Your task to perform on an android device: Search for "usb-c to usb-a" on newegg, select the first entry, add it to the cart, then select checkout. Image 0: 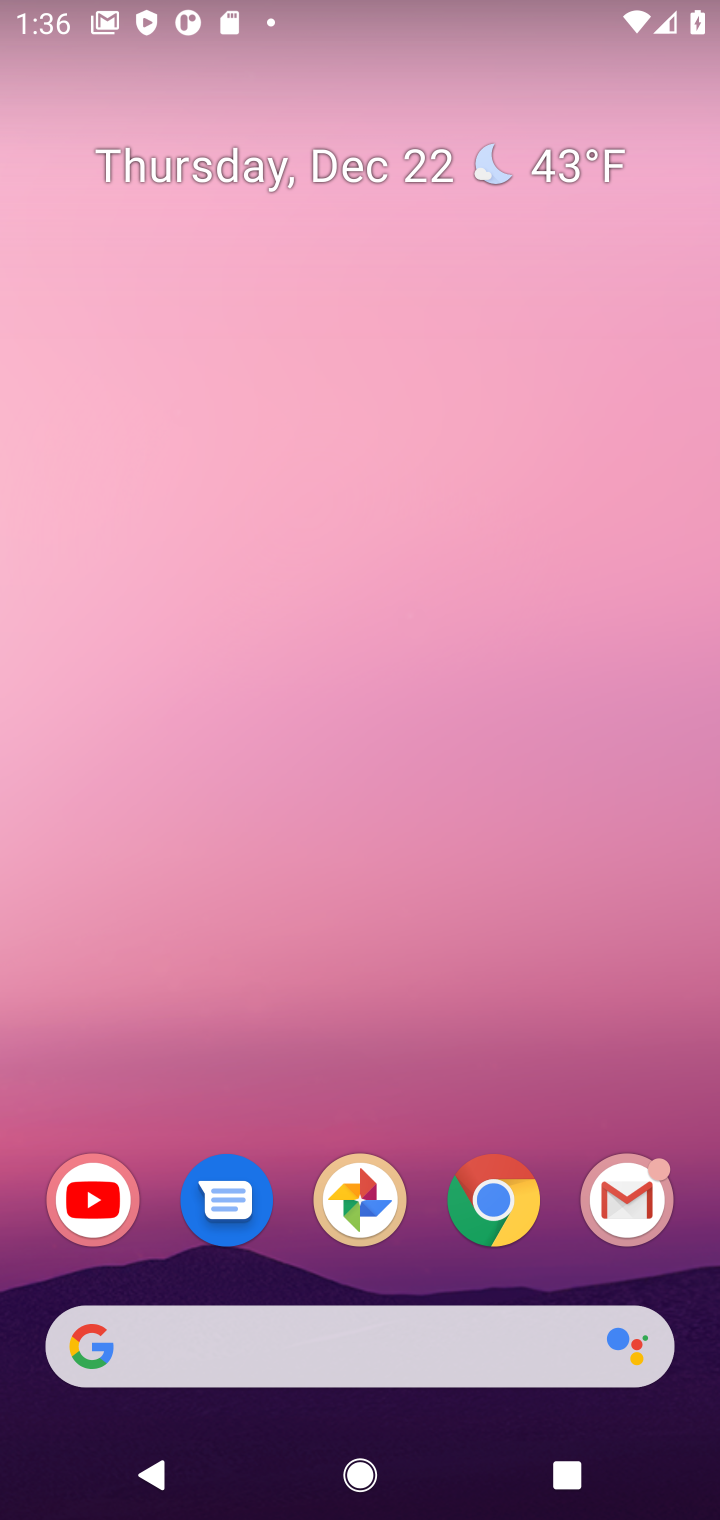
Step 0: click (491, 1215)
Your task to perform on an android device: Search for "usb-c to usb-a" on newegg, select the first entry, add it to the cart, then select checkout. Image 1: 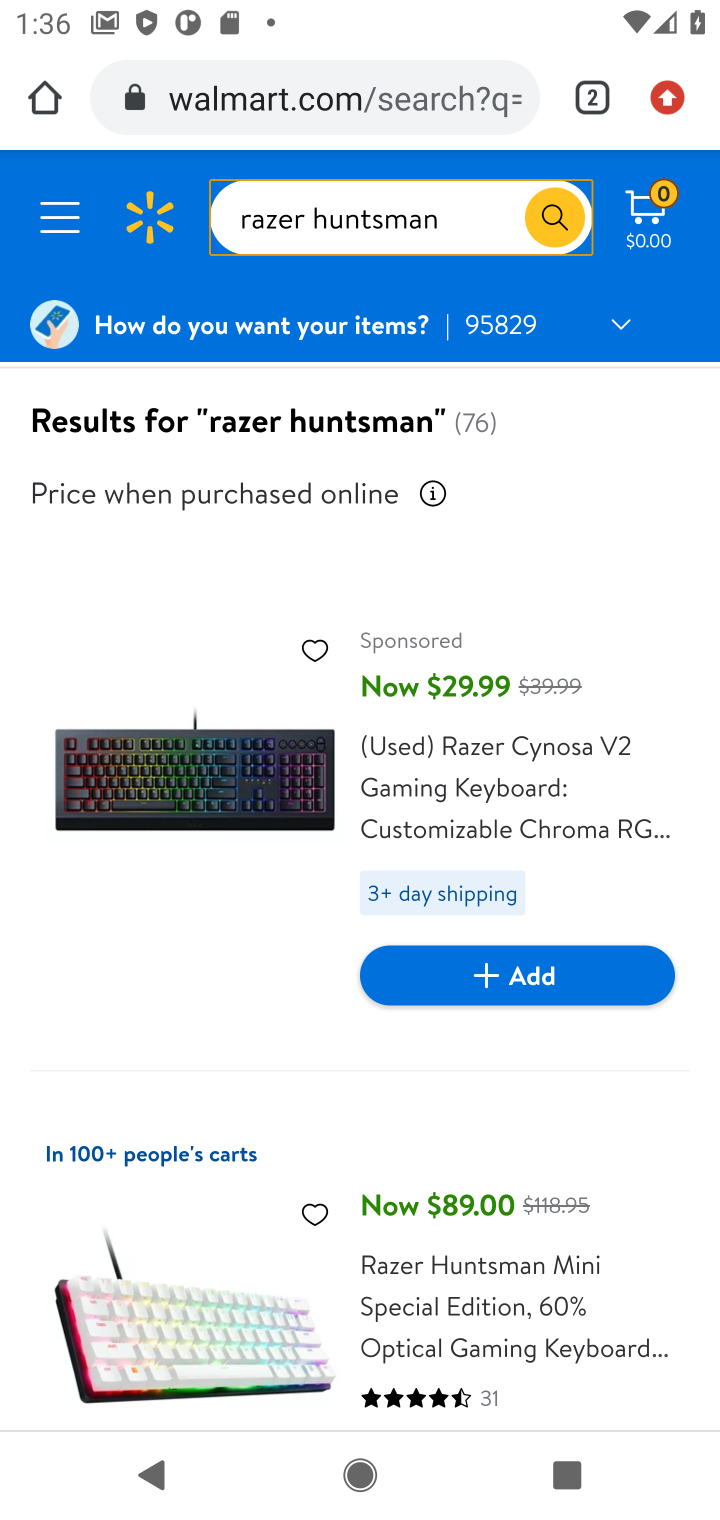
Step 1: click (286, 103)
Your task to perform on an android device: Search for "usb-c to usb-a" on newegg, select the first entry, add it to the cart, then select checkout. Image 2: 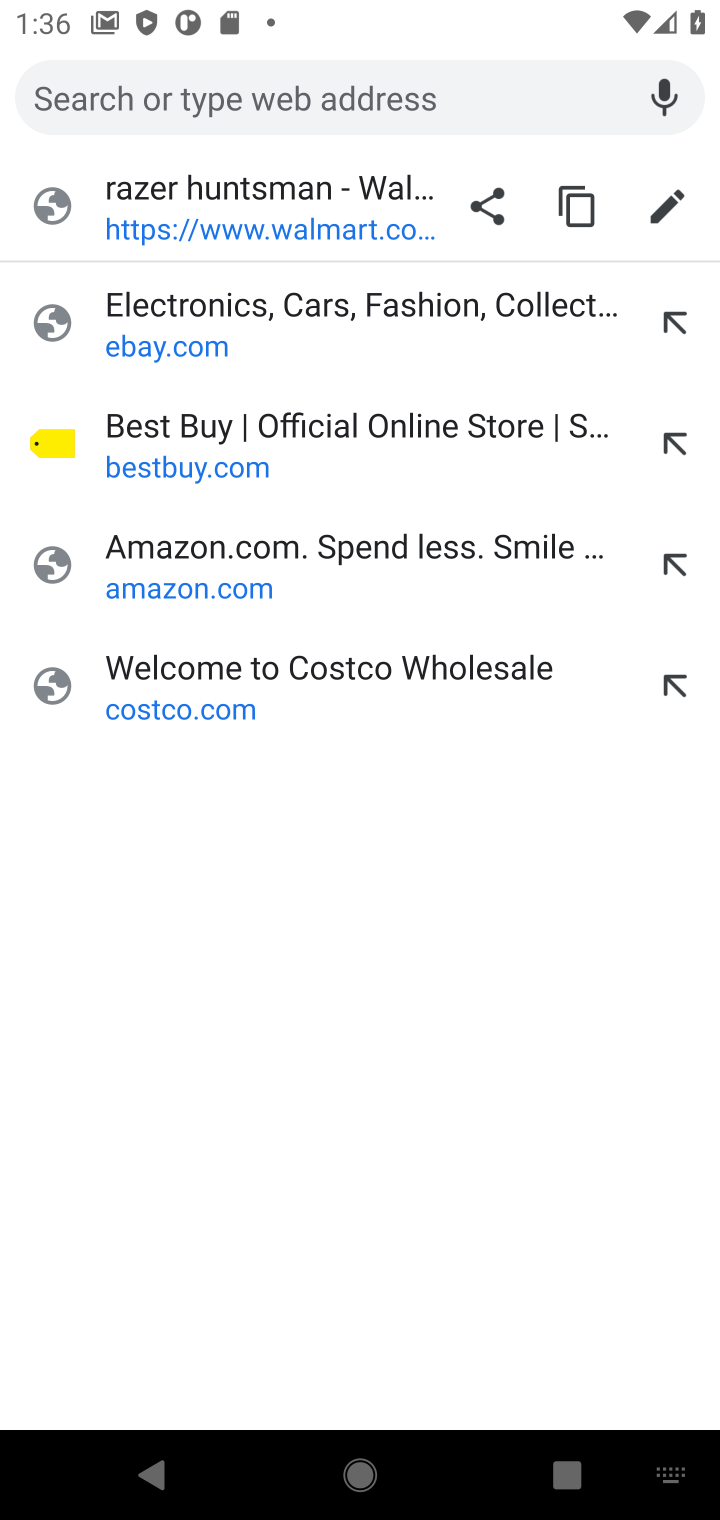
Step 2: click (286, 103)
Your task to perform on an android device: Search for "usb-c to usb-a" on newegg, select the first entry, add it to the cart, then select checkout. Image 3: 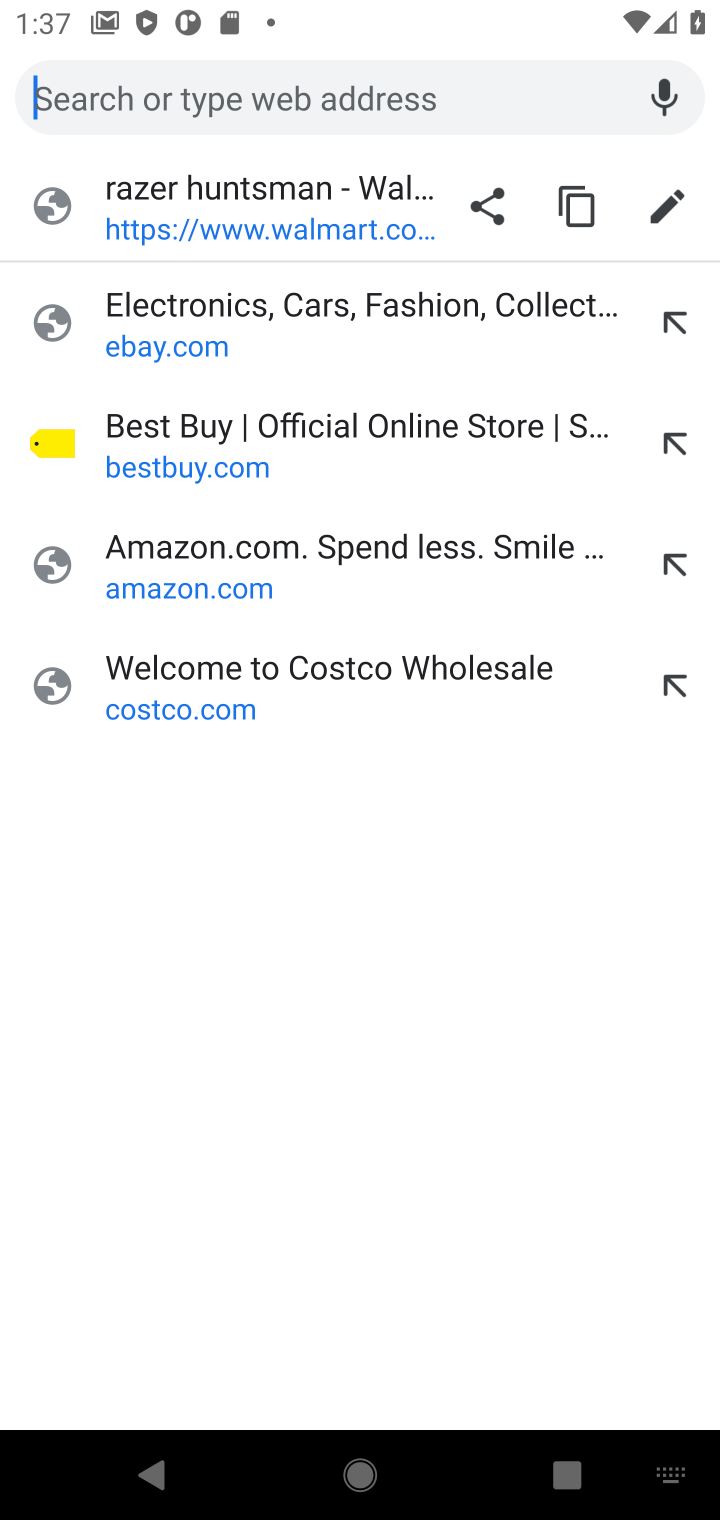
Step 3: type "newegg.com"
Your task to perform on an android device: Search for "usb-c to usb-a" on newegg, select the first entry, add it to the cart, then select checkout. Image 4: 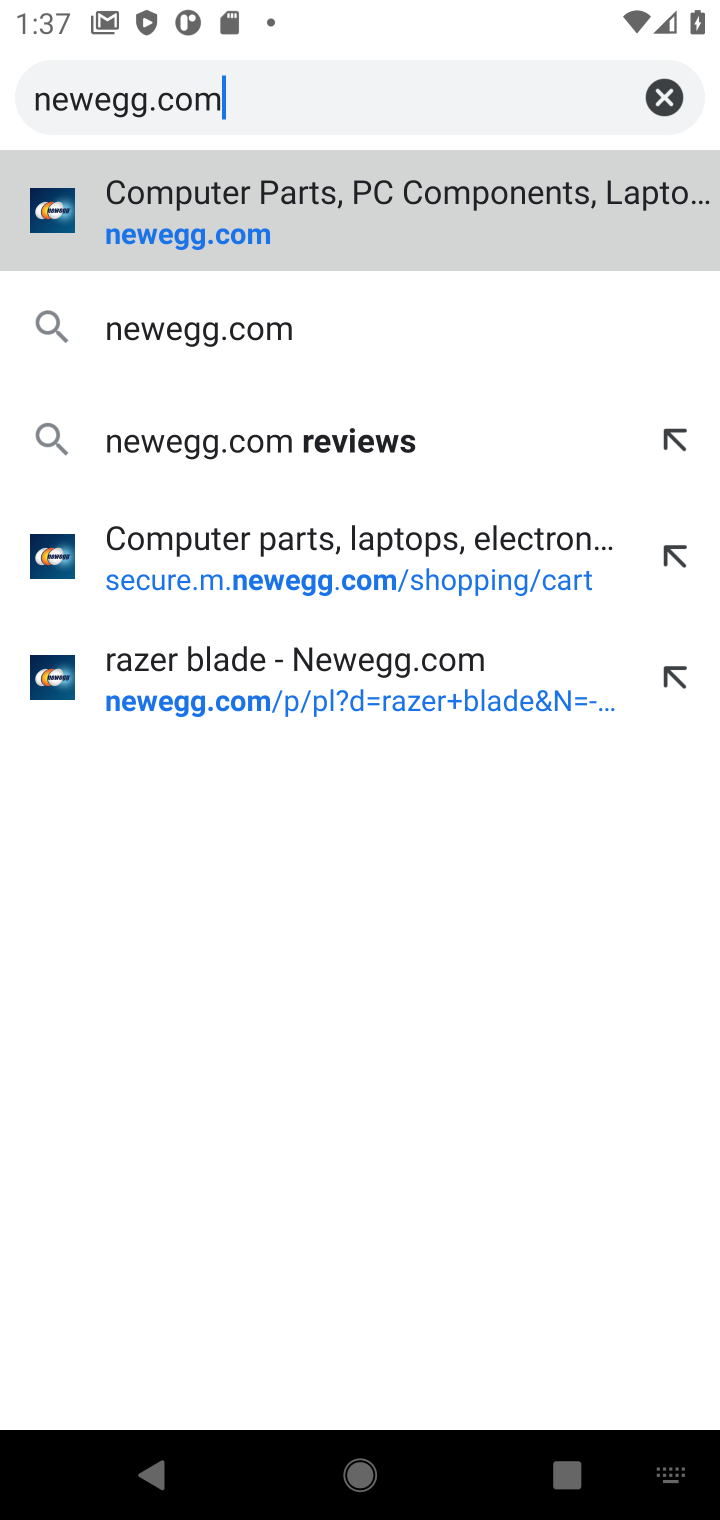
Step 4: click (199, 214)
Your task to perform on an android device: Search for "usb-c to usb-a" on newegg, select the first entry, add it to the cart, then select checkout. Image 5: 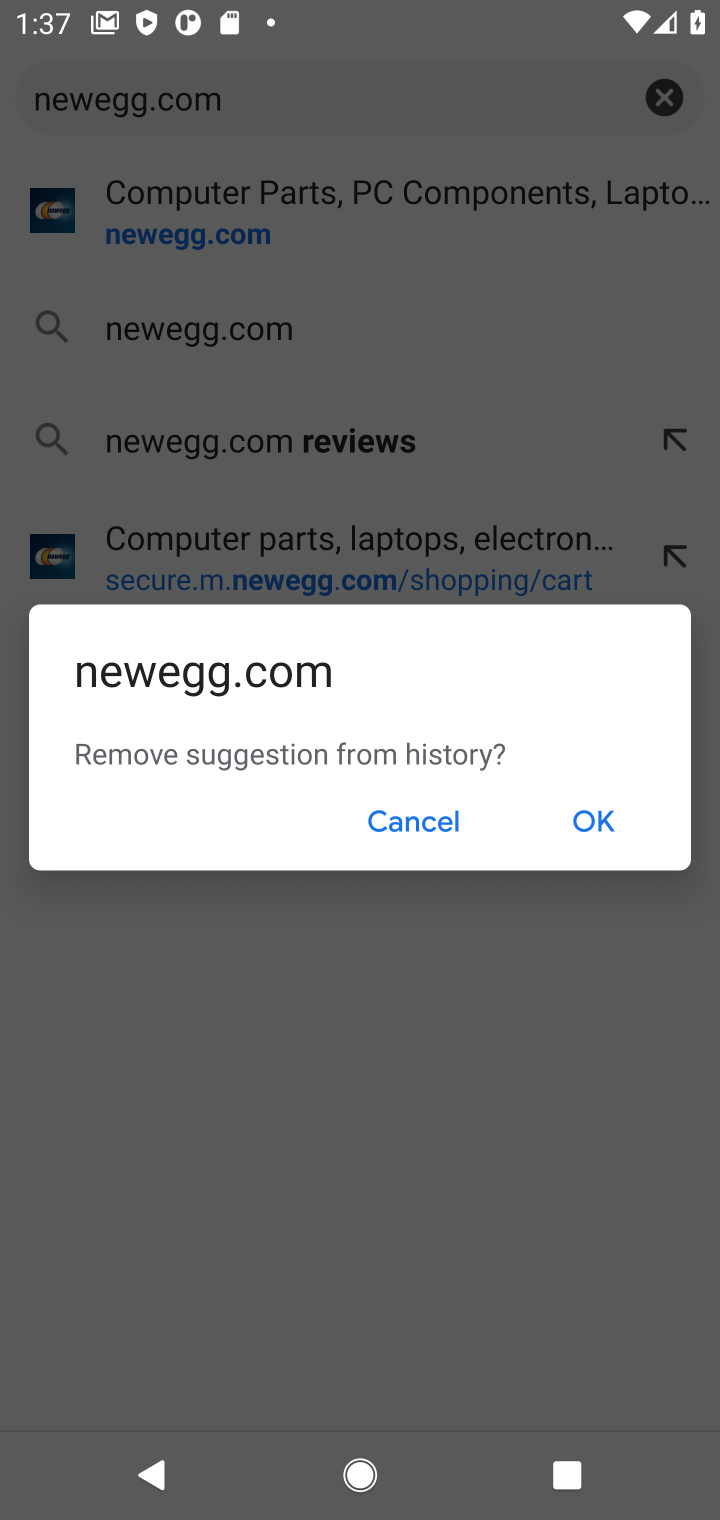
Step 5: click (386, 819)
Your task to perform on an android device: Search for "usb-c to usb-a" on newegg, select the first entry, add it to the cart, then select checkout. Image 6: 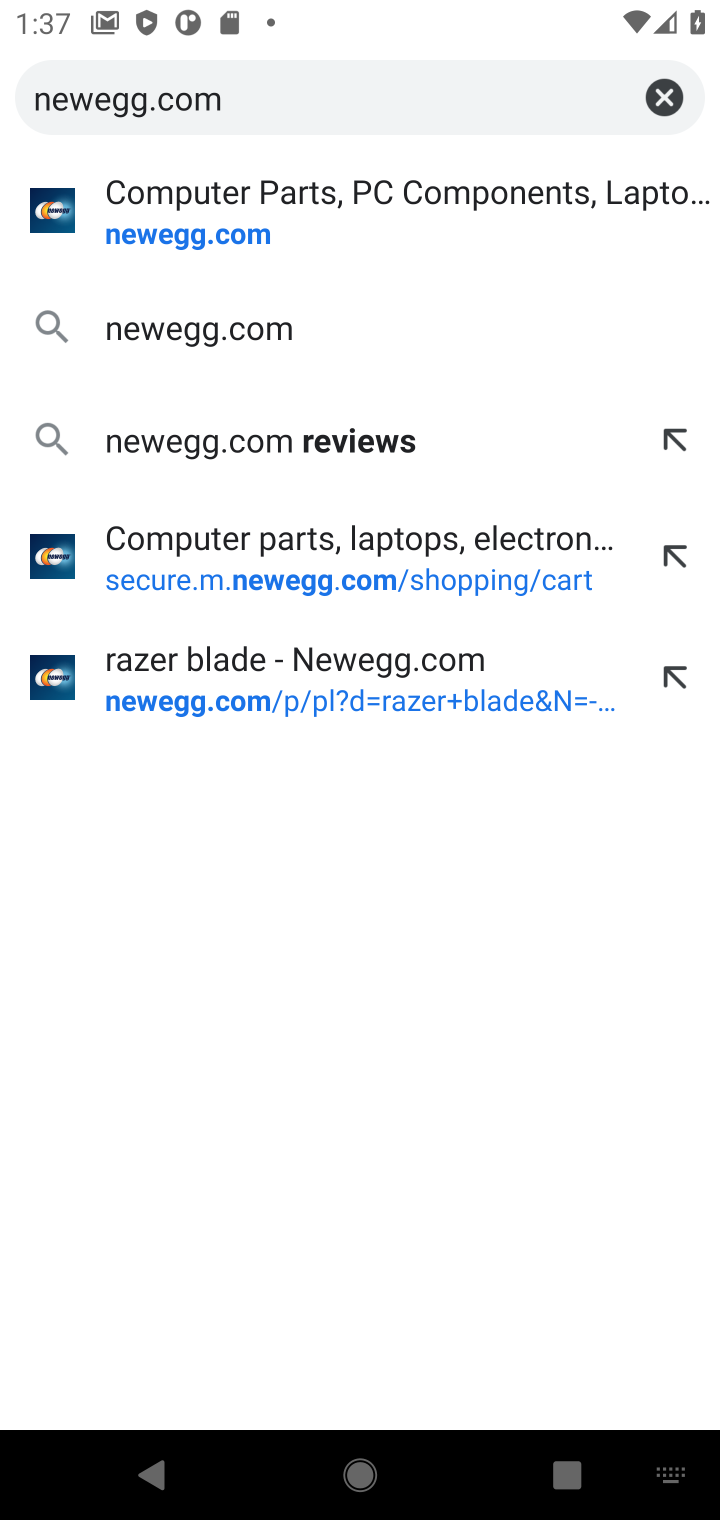
Step 6: click (163, 243)
Your task to perform on an android device: Search for "usb-c to usb-a" on newegg, select the first entry, add it to the cart, then select checkout. Image 7: 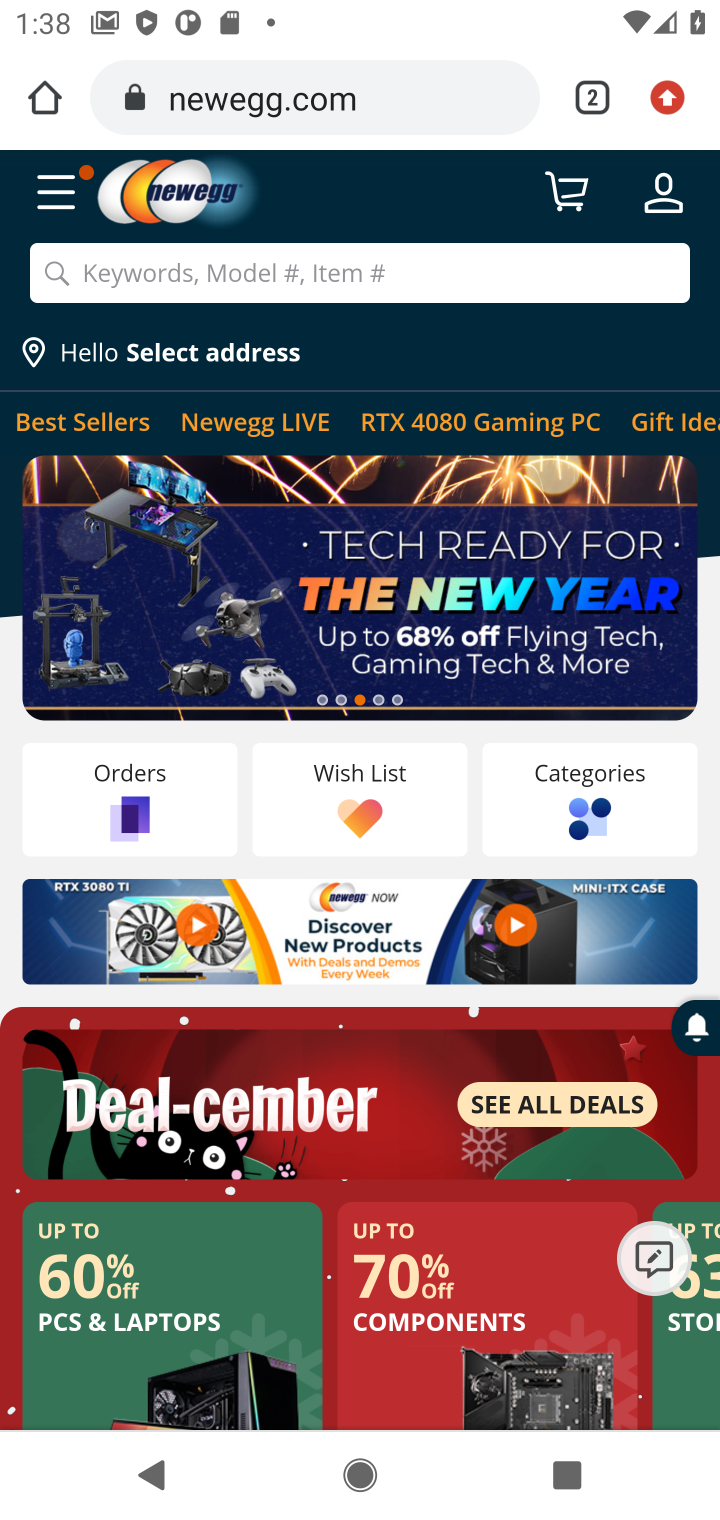
Step 7: click (143, 272)
Your task to perform on an android device: Search for "usb-c to usb-a" on newegg, select the first entry, add it to the cart, then select checkout. Image 8: 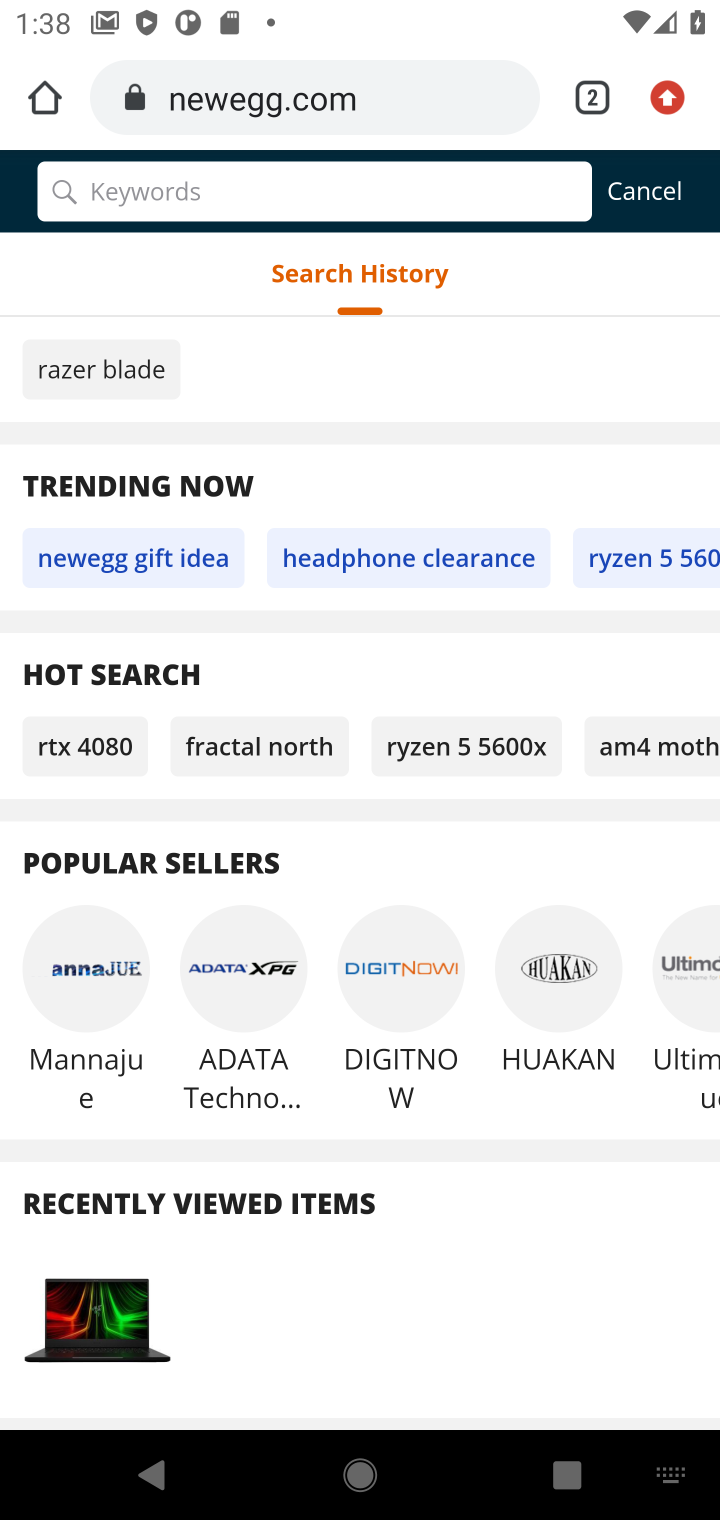
Step 8: type "usb-c to usb-a"
Your task to perform on an android device: Search for "usb-c to usb-a" on newegg, select the first entry, add it to the cart, then select checkout. Image 9: 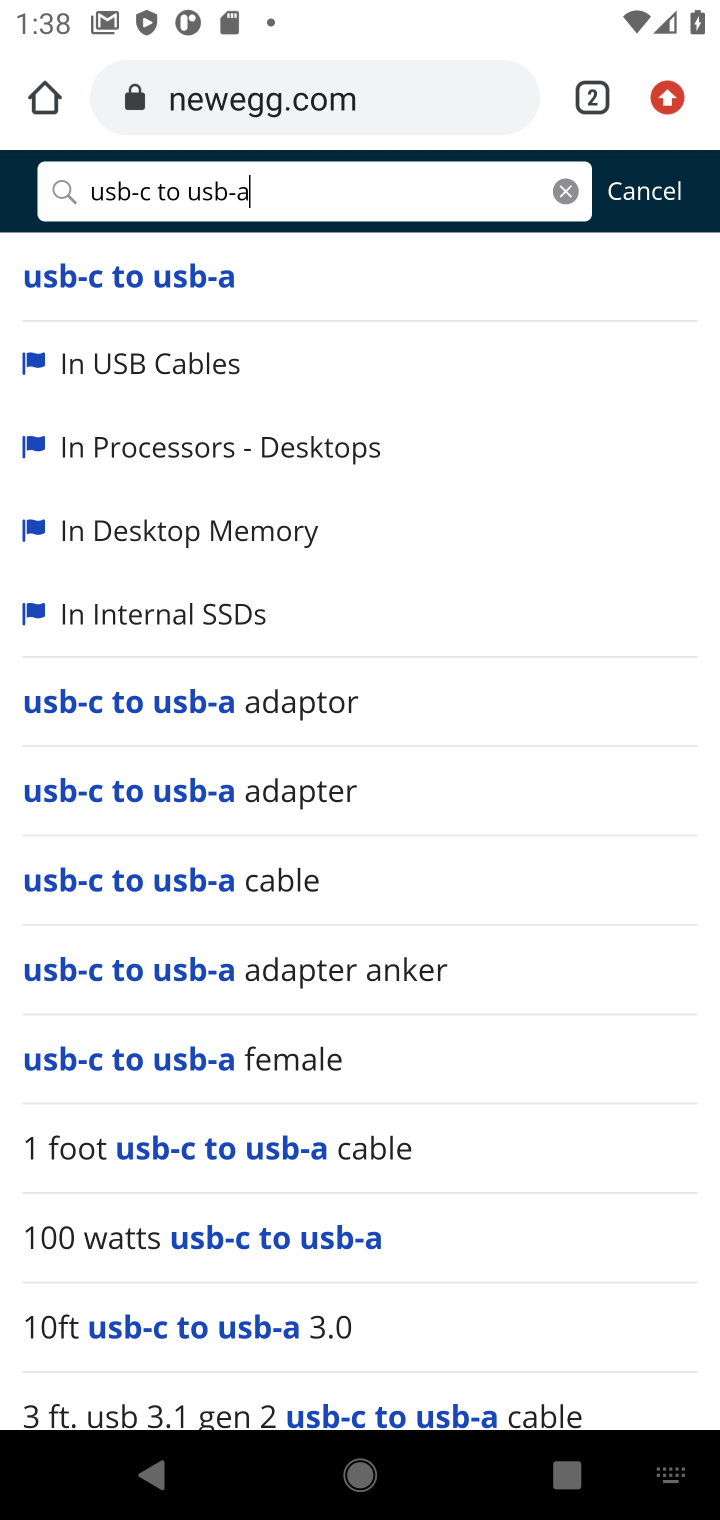
Step 9: click (111, 288)
Your task to perform on an android device: Search for "usb-c to usb-a" on newegg, select the first entry, add it to the cart, then select checkout. Image 10: 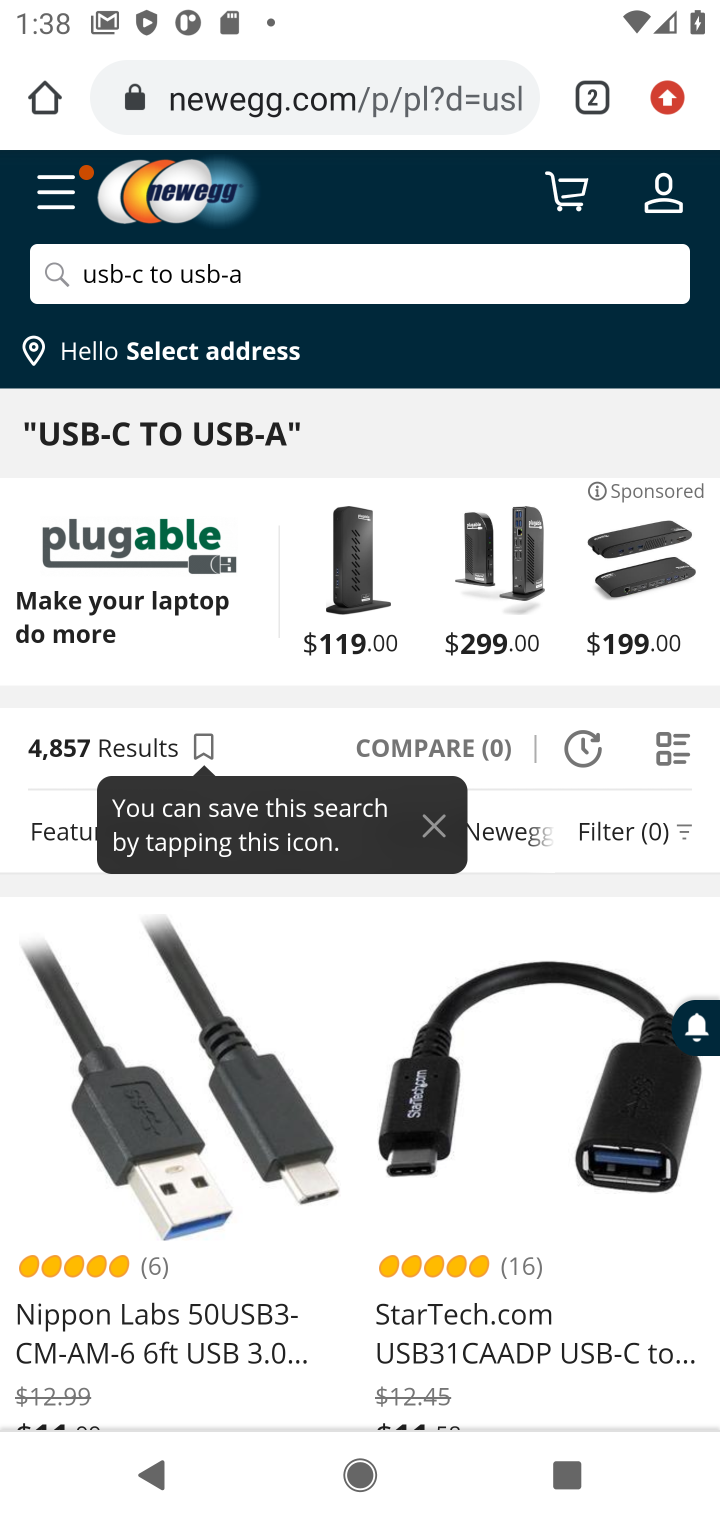
Step 10: drag from (237, 1173) to (265, 839)
Your task to perform on an android device: Search for "usb-c to usb-a" on newegg, select the first entry, add it to the cart, then select checkout. Image 11: 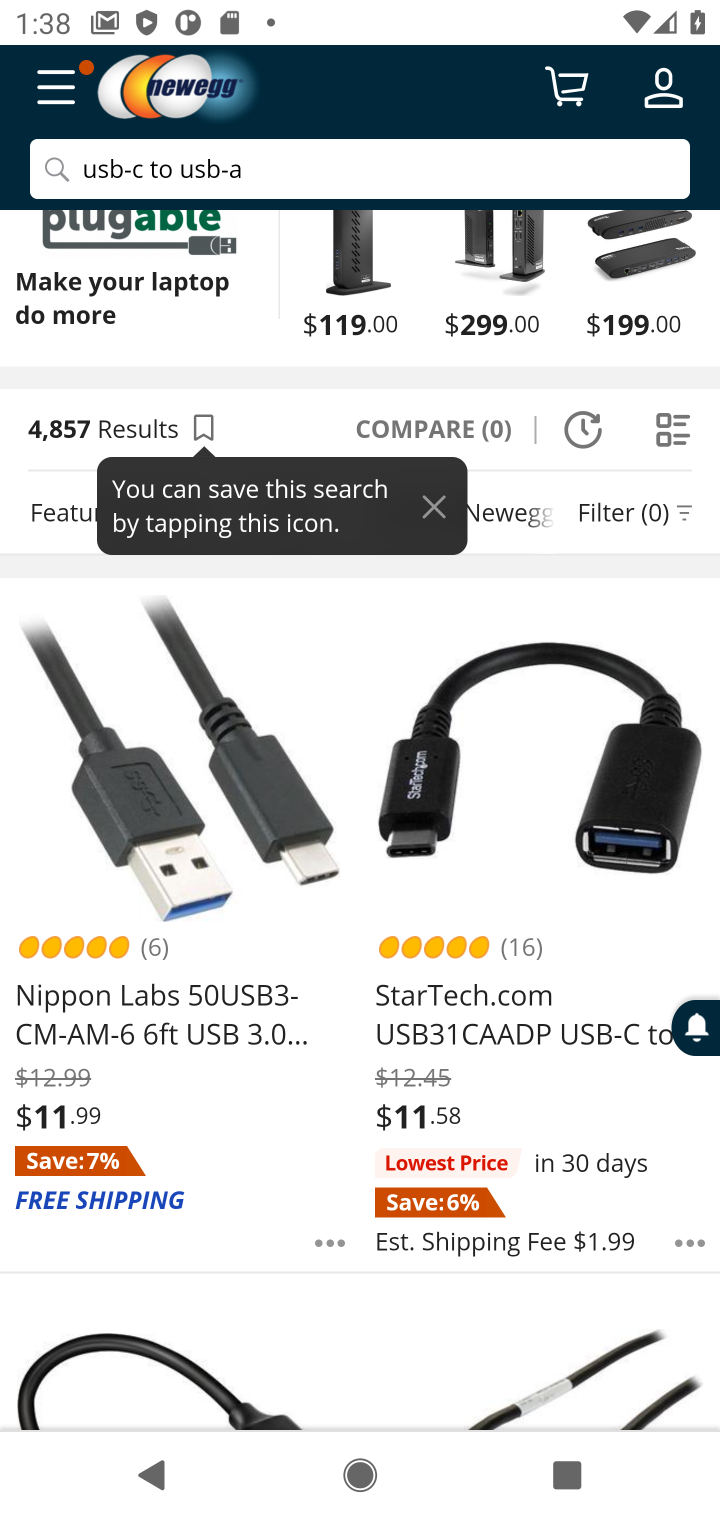
Step 11: click (145, 1013)
Your task to perform on an android device: Search for "usb-c to usb-a" on newegg, select the first entry, add it to the cart, then select checkout. Image 12: 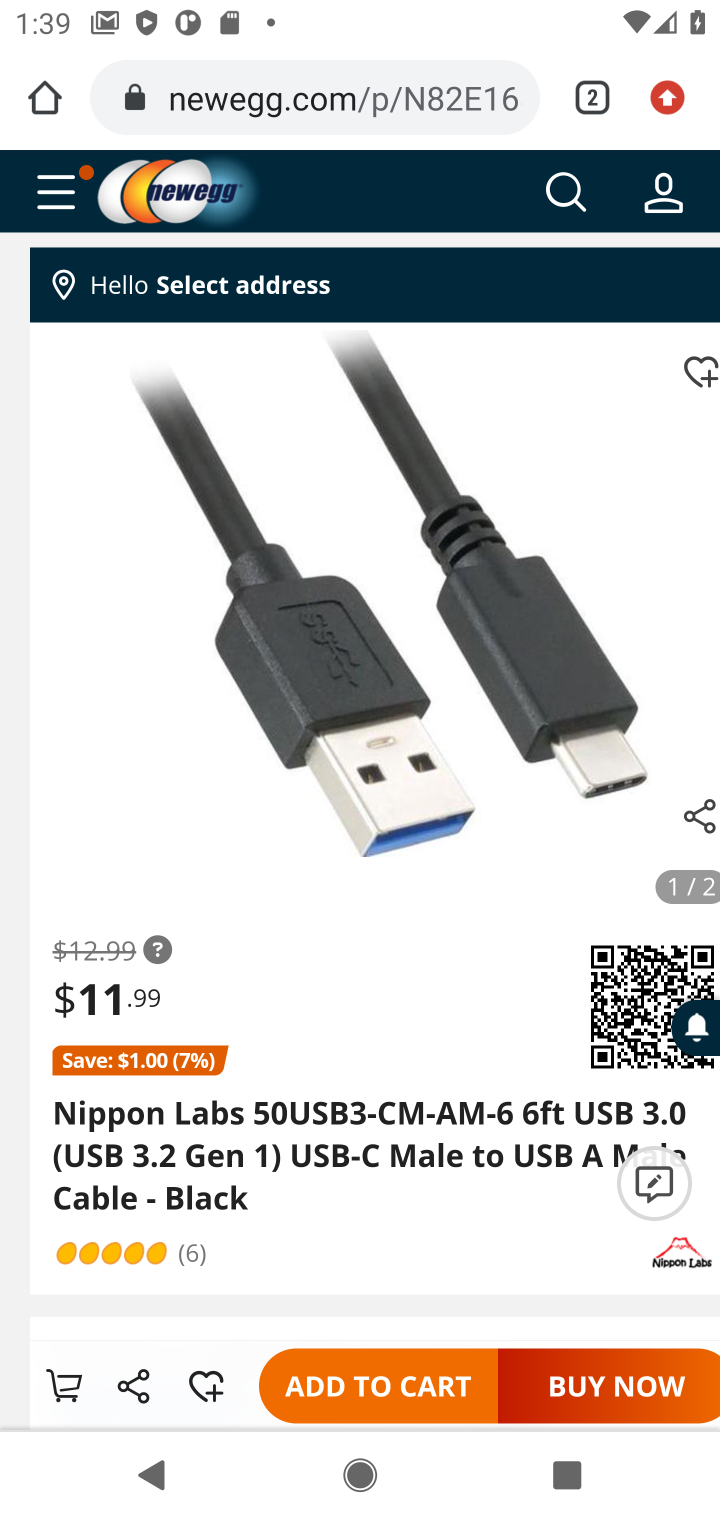
Step 12: click (364, 1398)
Your task to perform on an android device: Search for "usb-c to usb-a" on newegg, select the first entry, add it to the cart, then select checkout. Image 13: 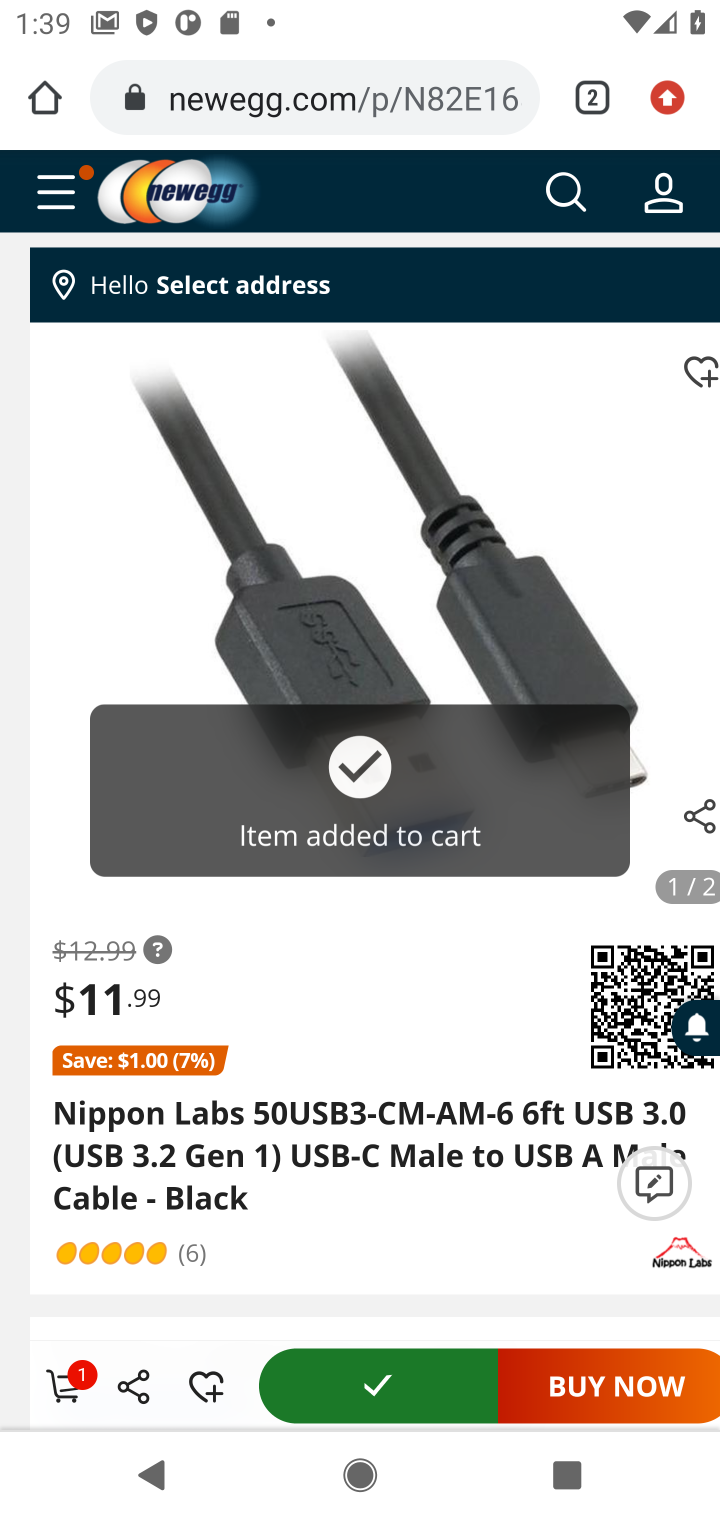
Step 13: click (76, 1376)
Your task to perform on an android device: Search for "usb-c to usb-a" on newegg, select the first entry, add it to the cart, then select checkout. Image 14: 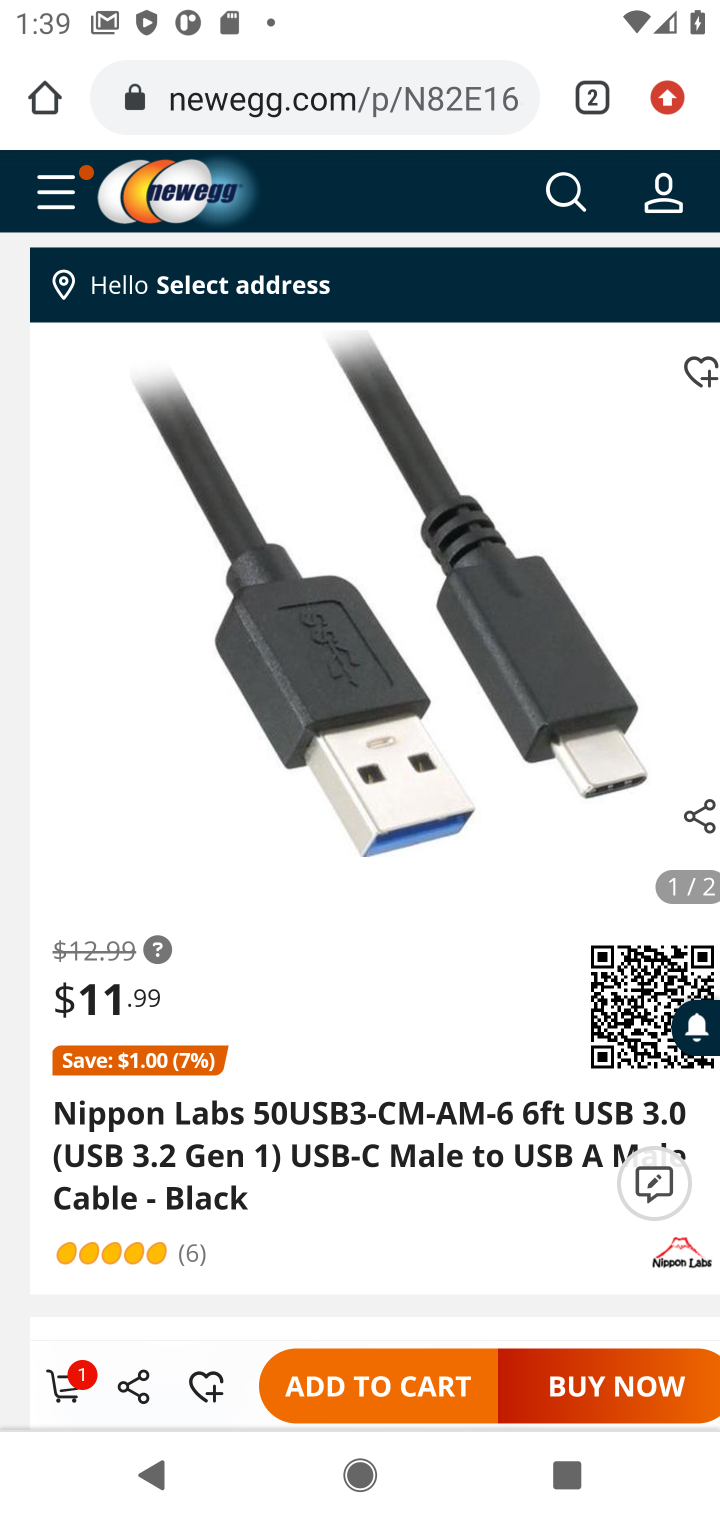
Step 14: click (76, 1376)
Your task to perform on an android device: Search for "usb-c to usb-a" on newegg, select the first entry, add it to the cart, then select checkout. Image 15: 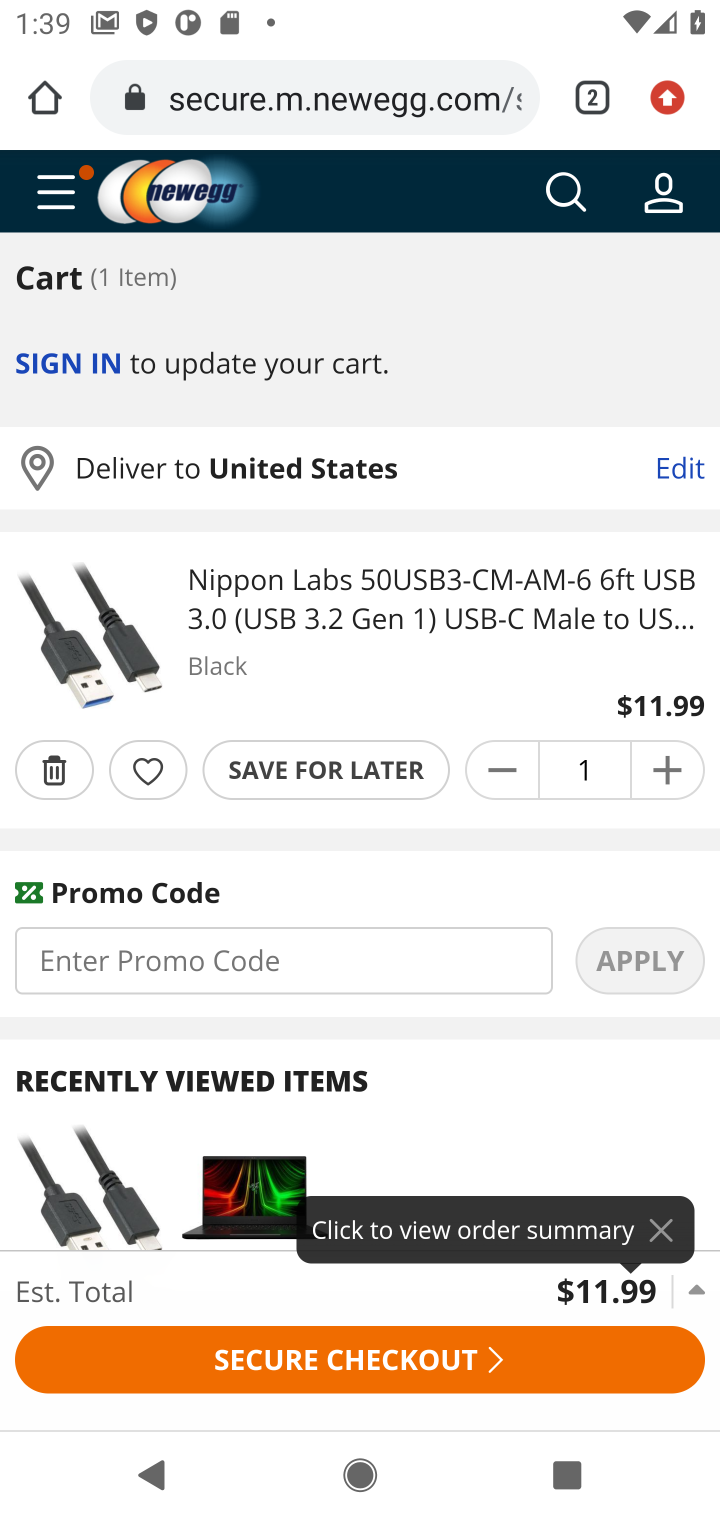
Step 15: click (331, 1347)
Your task to perform on an android device: Search for "usb-c to usb-a" on newegg, select the first entry, add it to the cart, then select checkout. Image 16: 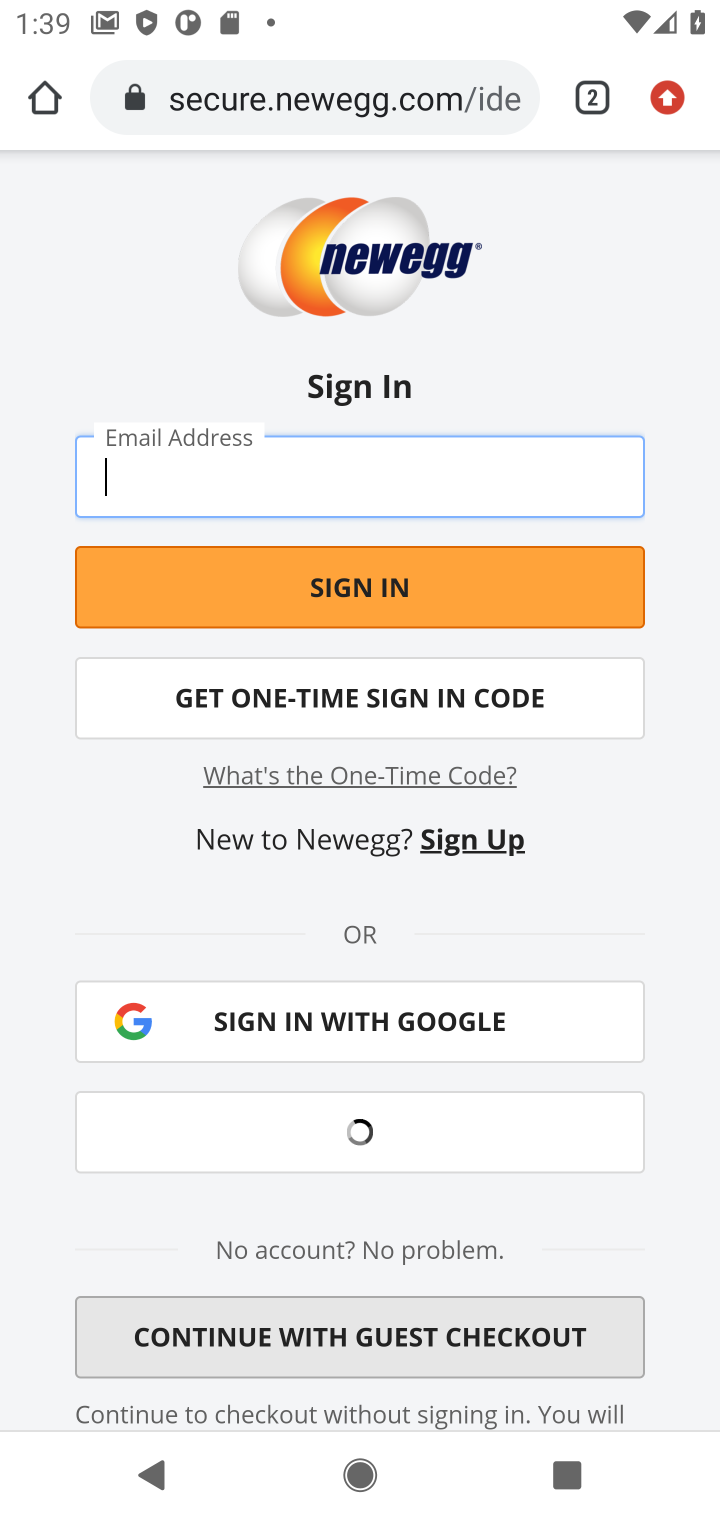
Step 16: task complete